Your task to perform on an android device: check out phone information Image 0: 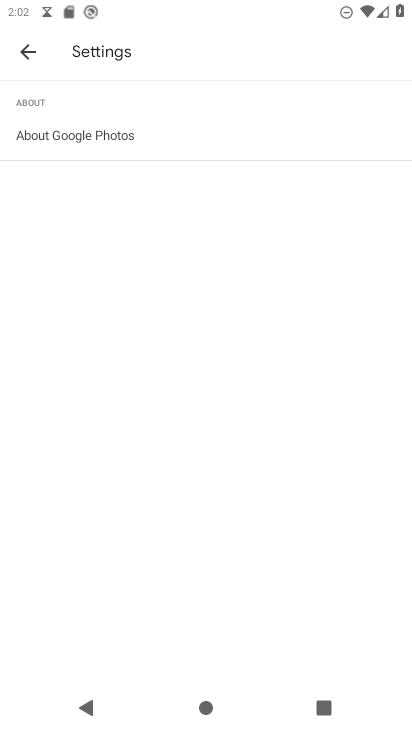
Step 0: press home button
Your task to perform on an android device: check out phone information Image 1: 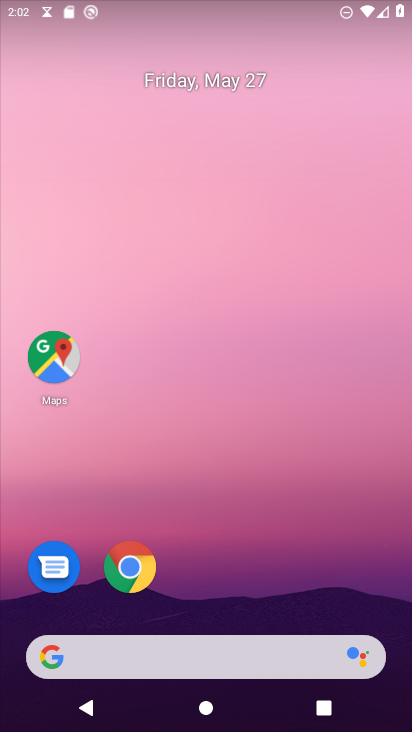
Step 1: drag from (226, 595) to (190, 195)
Your task to perform on an android device: check out phone information Image 2: 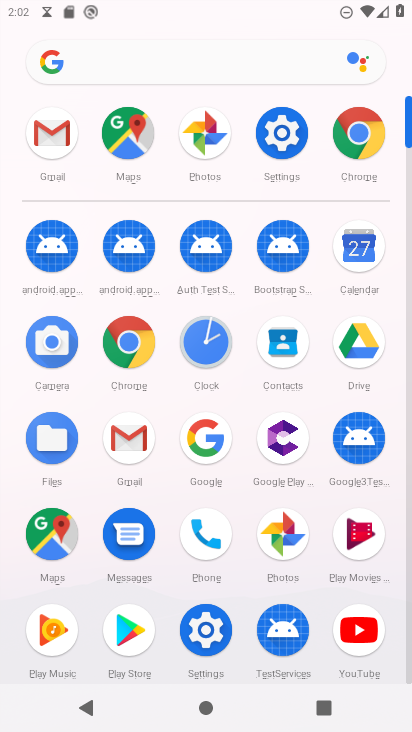
Step 2: click (272, 155)
Your task to perform on an android device: check out phone information Image 3: 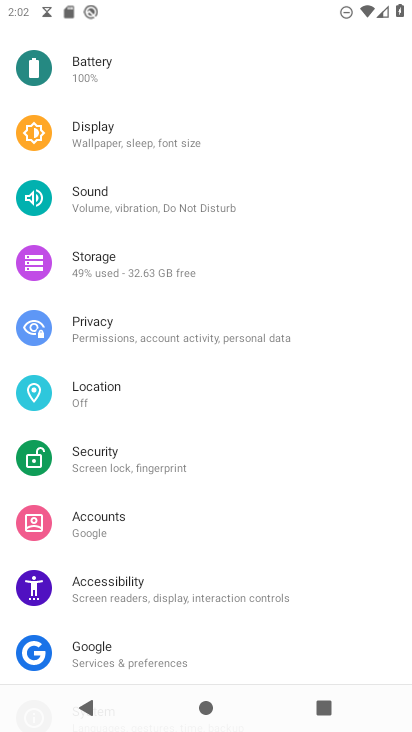
Step 3: drag from (211, 631) to (131, 2)
Your task to perform on an android device: check out phone information Image 4: 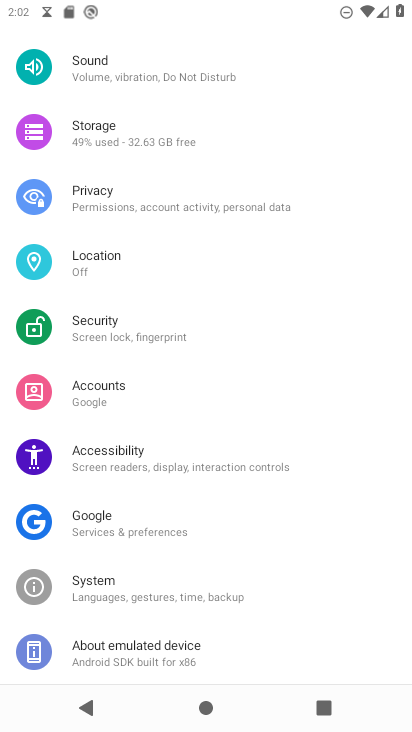
Step 4: click (172, 643)
Your task to perform on an android device: check out phone information Image 5: 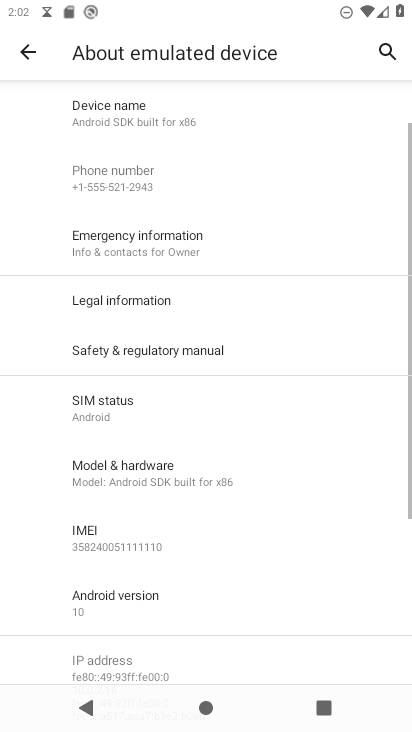
Step 5: task complete